Your task to perform on an android device: Open Yahoo.com Image 0: 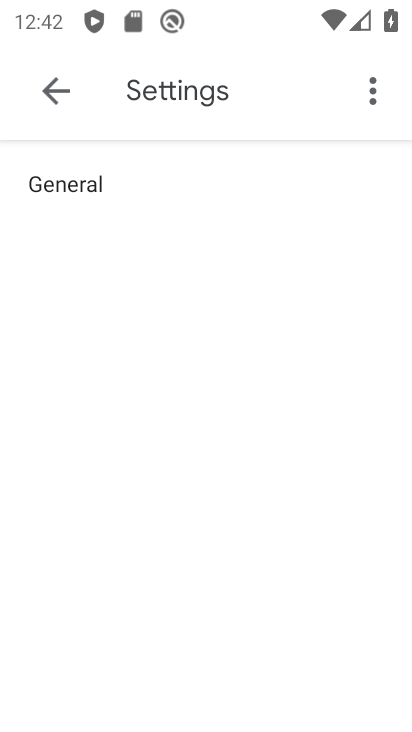
Step 0: press home button
Your task to perform on an android device: Open Yahoo.com Image 1: 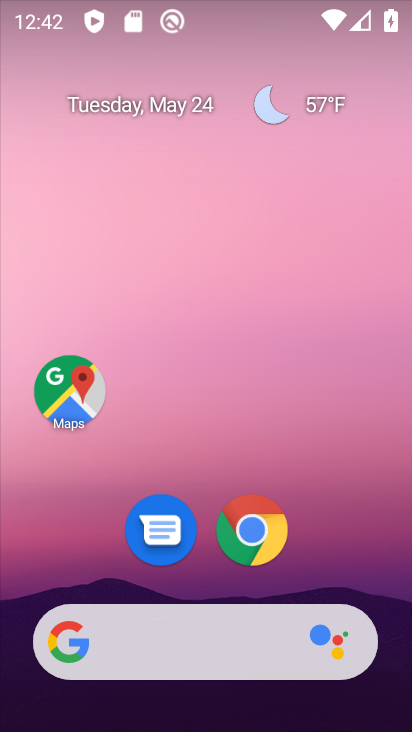
Step 1: click (243, 530)
Your task to perform on an android device: Open Yahoo.com Image 2: 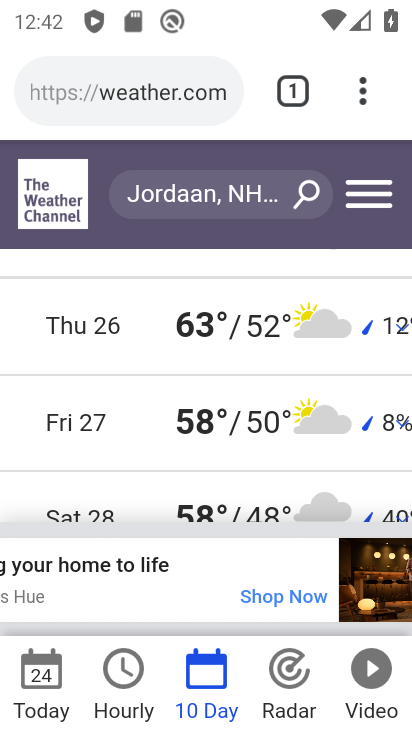
Step 2: drag from (371, 110) to (280, 193)
Your task to perform on an android device: Open Yahoo.com Image 3: 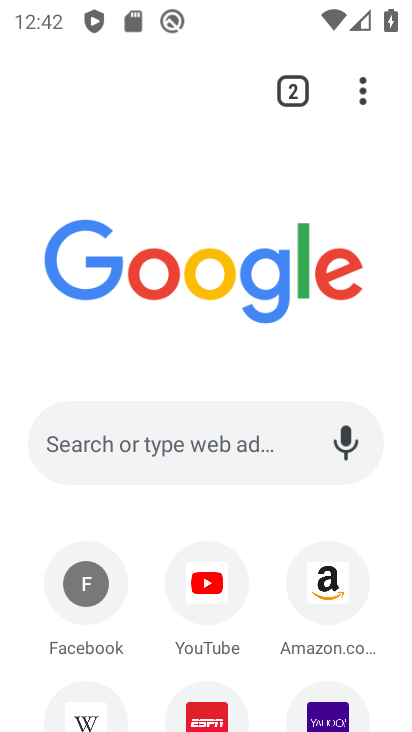
Step 3: drag from (159, 662) to (230, 399)
Your task to perform on an android device: Open Yahoo.com Image 4: 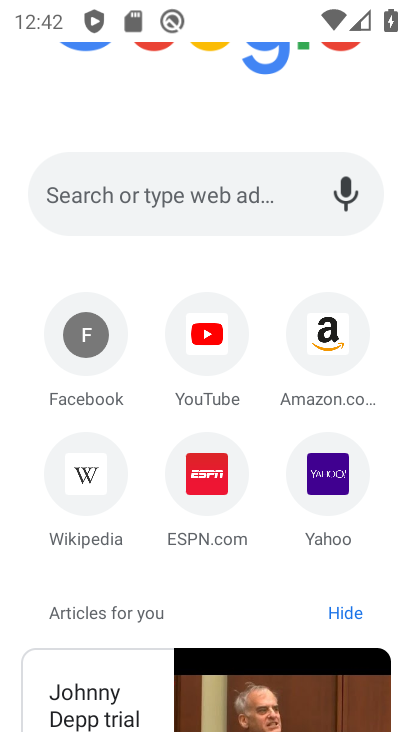
Step 4: click (347, 504)
Your task to perform on an android device: Open Yahoo.com Image 5: 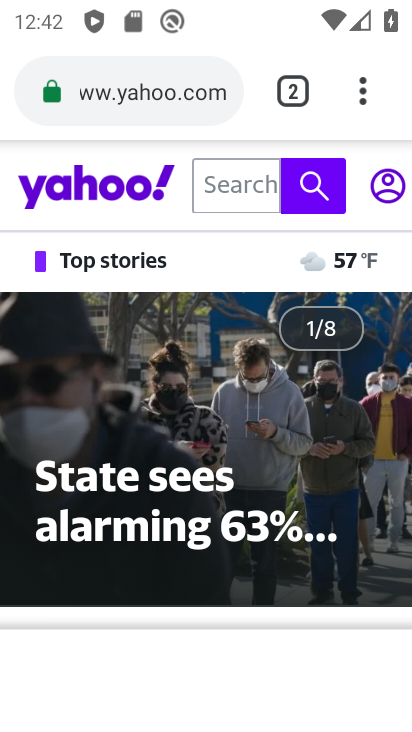
Step 5: drag from (179, 673) to (307, 308)
Your task to perform on an android device: Open Yahoo.com Image 6: 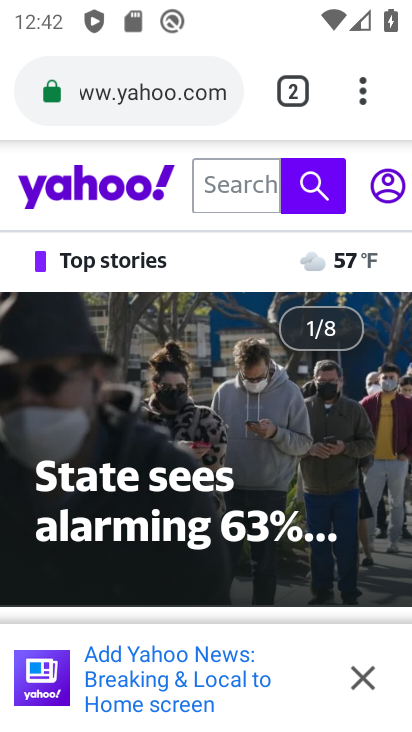
Step 6: click (363, 683)
Your task to perform on an android device: Open Yahoo.com Image 7: 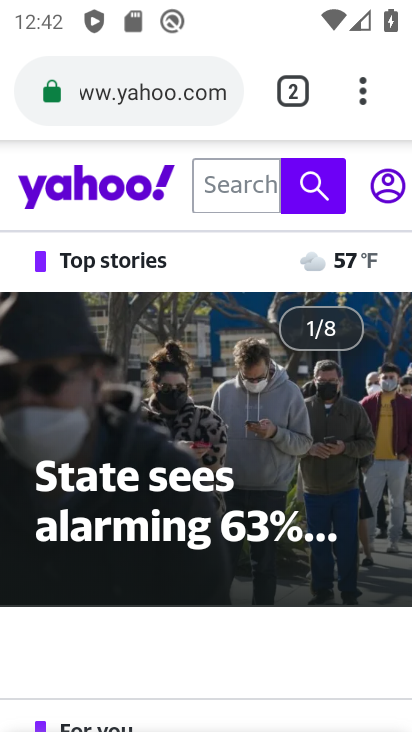
Step 7: task complete